Your task to perform on an android device: turn on the 24-hour format for clock Image 0: 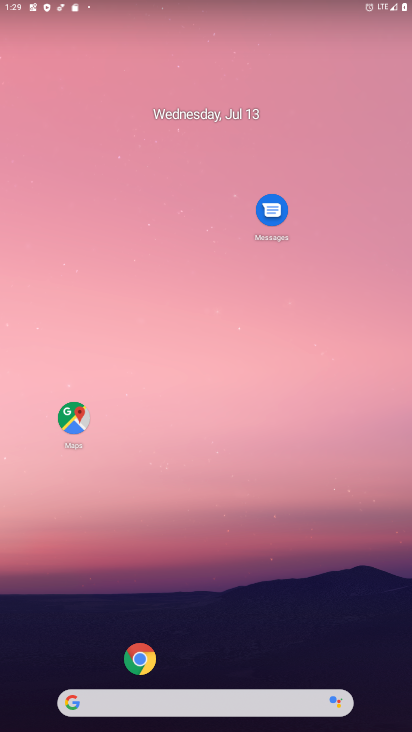
Step 0: drag from (99, 523) to (272, 32)
Your task to perform on an android device: turn on the 24-hour format for clock Image 1: 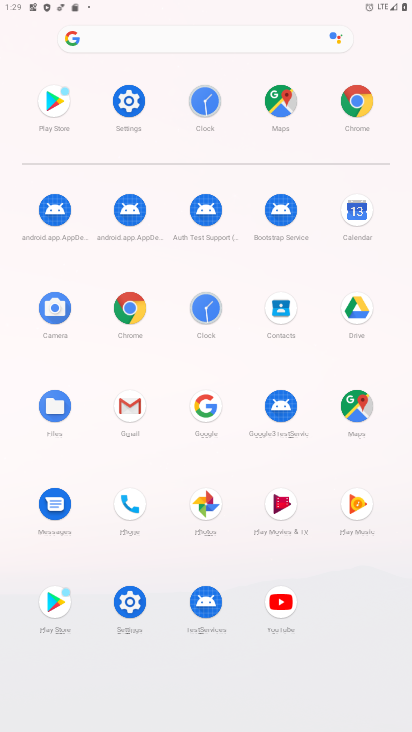
Step 1: click (205, 309)
Your task to perform on an android device: turn on the 24-hour format for clock Image 2: 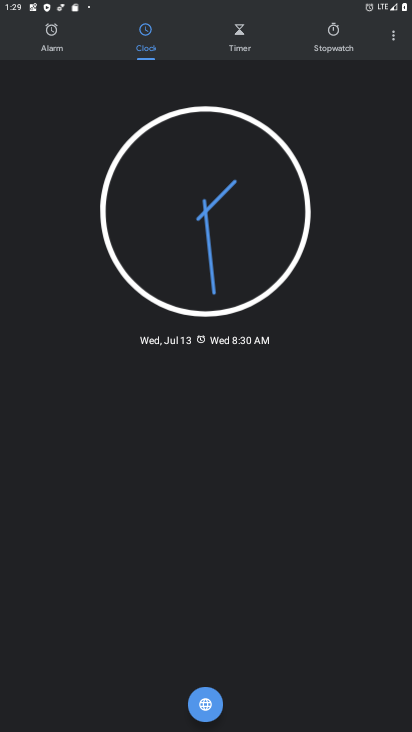
Step 2: click (392, 36)
Your task to perform on an android device: turn on the 24-hour format for clock Image 3: 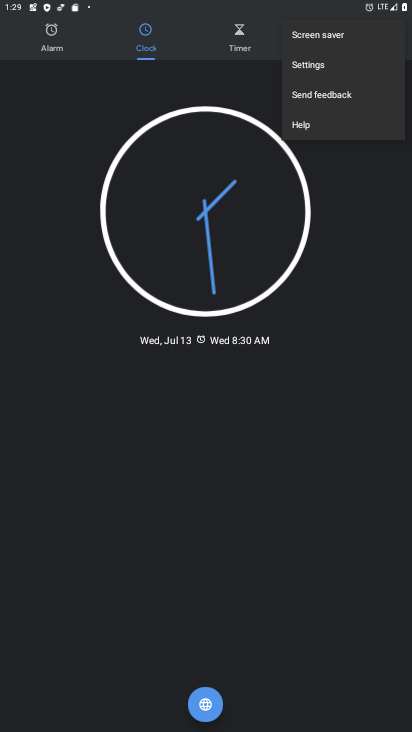
Step 3: click (312, 59)
Your task to perform on an android device: turn on the 24-hour format for clock Image 4: 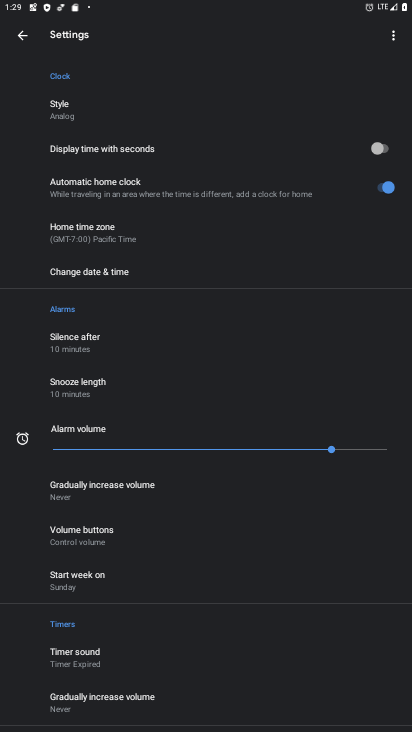
Step 4: click (113, 268)
Your task to perform on an android device: turn on the 24-hour format for clock Image 5: 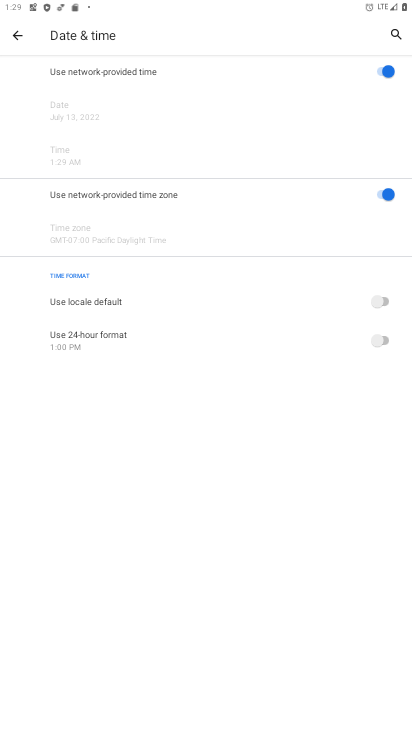
Step 5: click (382, 341)
Your task to perform on an android device: turn on the 24-hour format for clock Image 6: 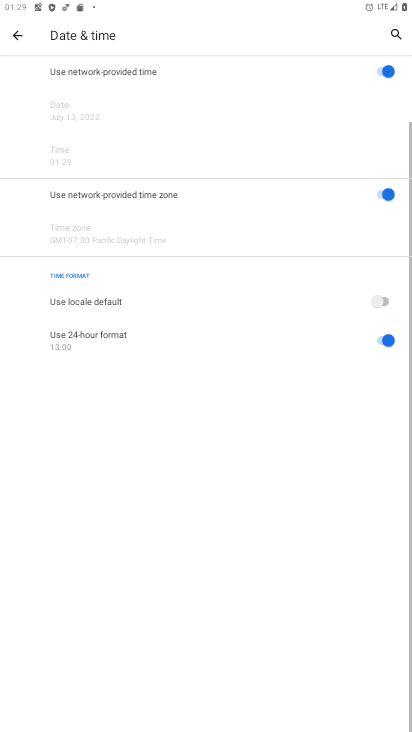
Step 6: click (385, 294)
Your task to perform on an android device: turn on the 24-hour format for clock Image 7: 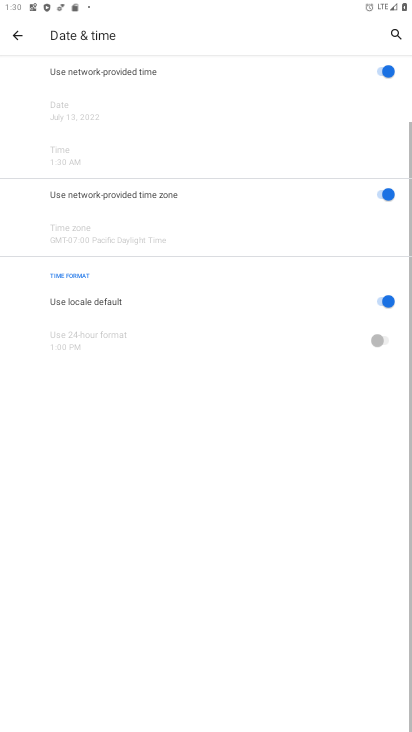
Step 7: task complete